Your task to perform on an android device: empty trash in the gmail app Image 0: 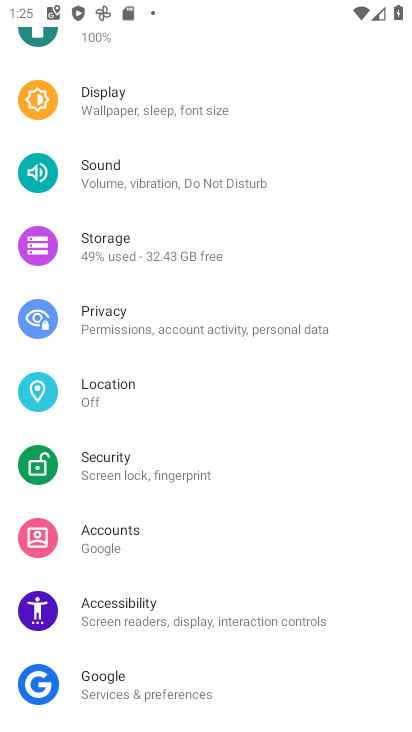
Step 0: press home button
Your task to perform on an android device: empty trash in the gmail app Image 1: 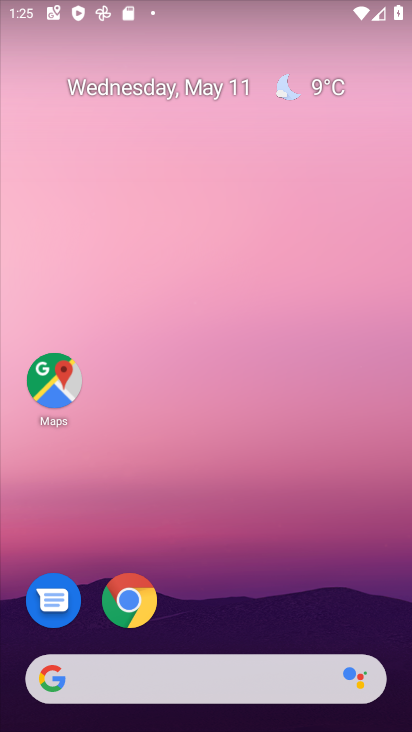
Step 1: drag from (210, 729) to (177, 208)
Your task to perform on an android device: empty trash in the gmail app Image 2: 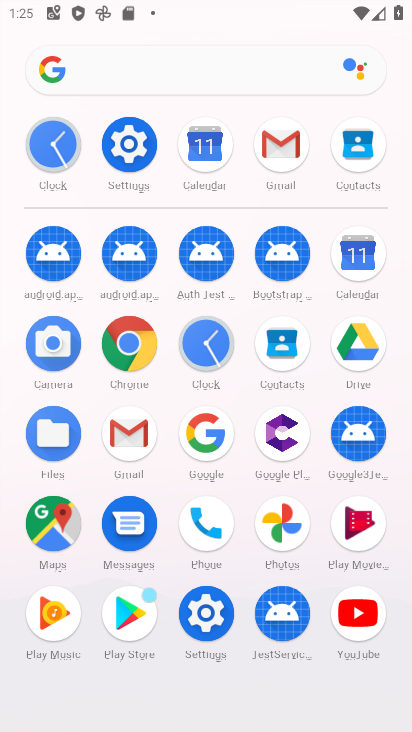
Step 2: click (293, 145)
Your task to perform on an android device: empty trash in the gmail app Image 3: 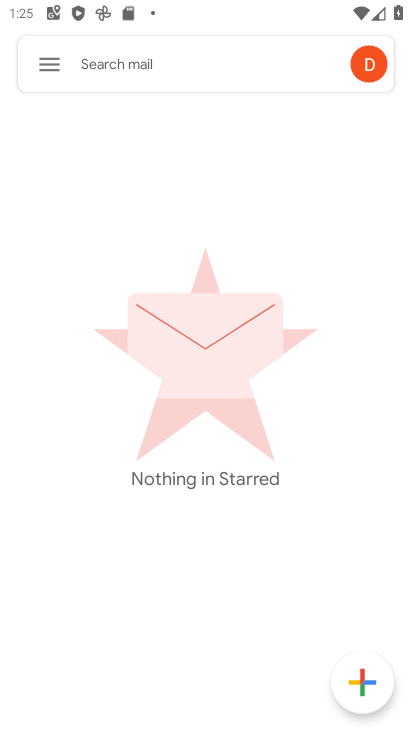
Step 3: click (51, 65)
Your task to perform on an android device: empty trash in the gmail app Image 4: 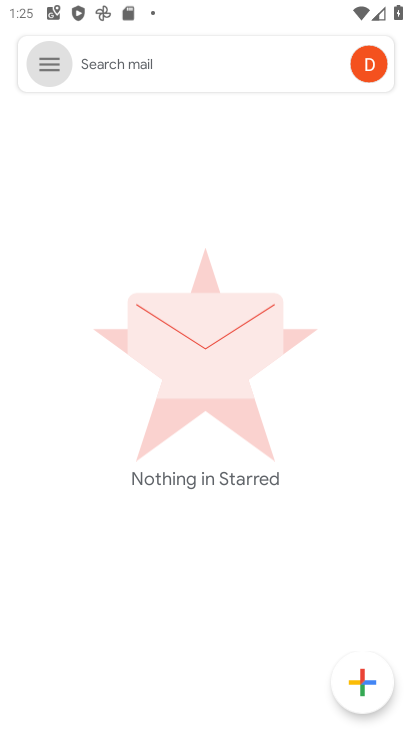
Step 4: click (51, 65)
Your task to perform on an android device: empty trash in the gmail app Image 5: 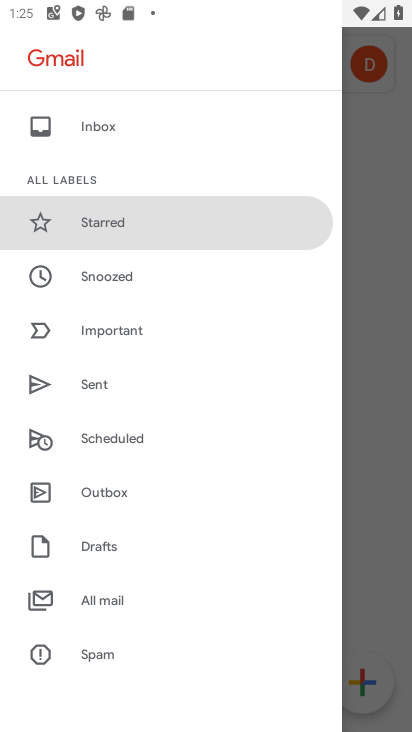
Step 5: drag from (160, 624) to (130, 60)
Your task to perform on an android device: empty trash in the gmail app Image 6: 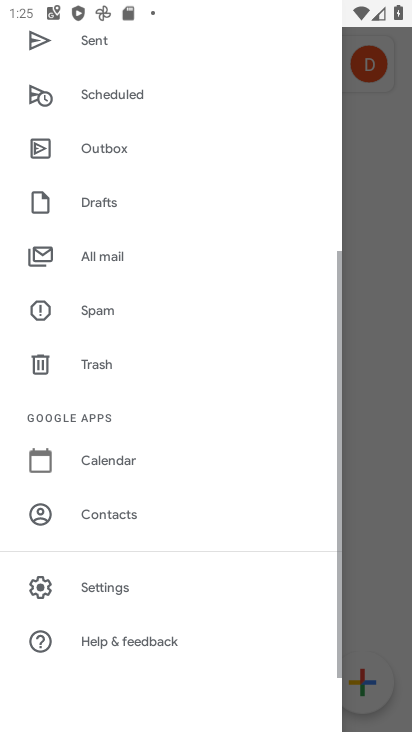
Step 6: click (108, 356)
Your task to perform on an android device: empty trash in the gmail app Image 7: 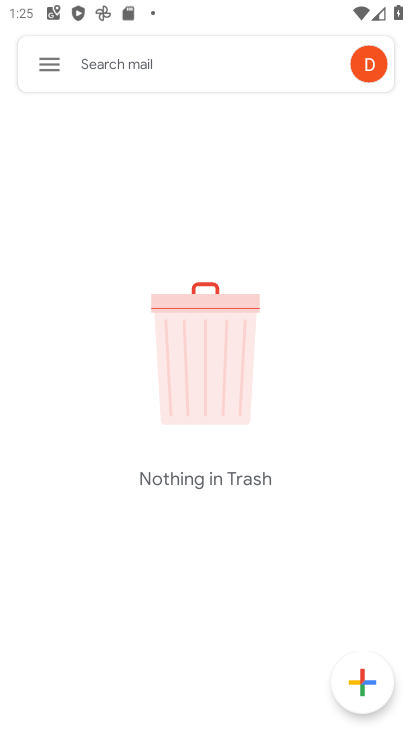
Step 7: task complete